Your task to perform on an android device: Open Youtube and go to "Your channel" Image 0: 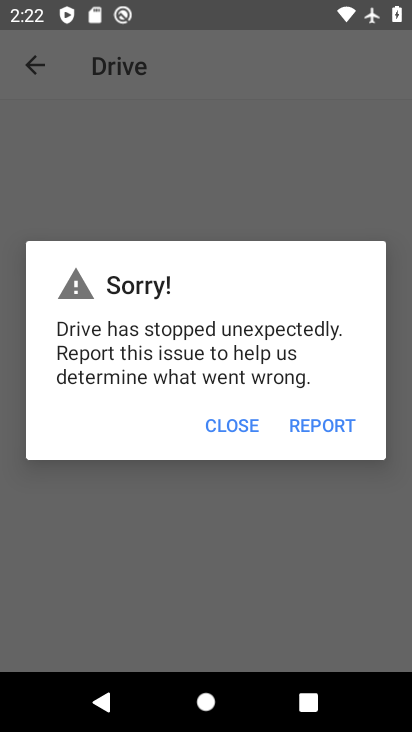
Step 0: press home button
Your task to perform on an android device: Open Youtube and go to "Your channel" Image 1: 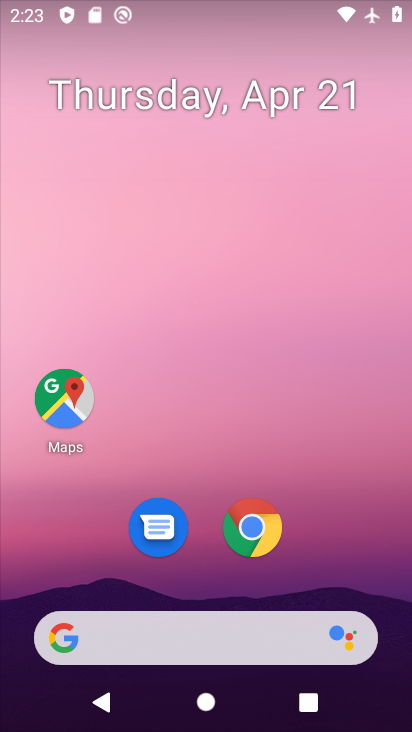
Step 1: drag from (299, 536) to (354, 37)
Your task to perform on an android device: Open Youtube and go to "Your channel" Image 2: 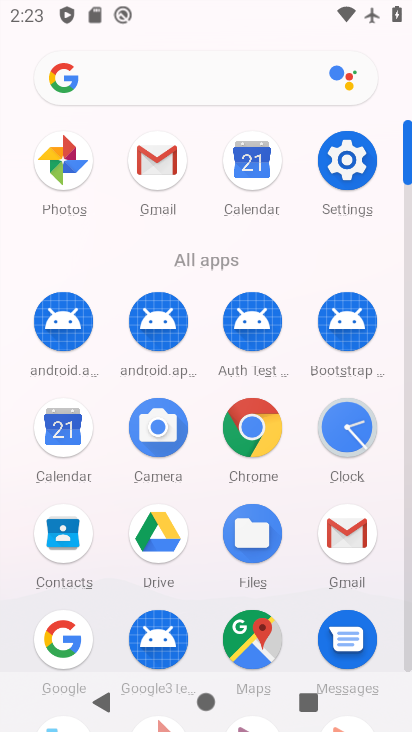
Step 2: drag from (286, 597) to (308, 110)
Your task to perform on an android device: Open Youtube and go to "Your channel" Image 3: 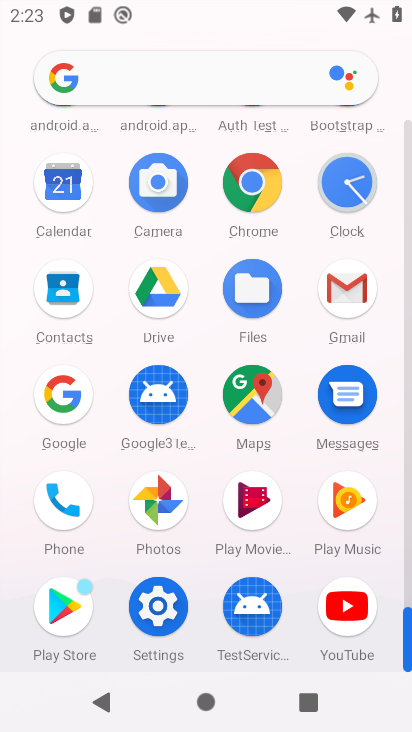
Step 3: click (339, 612)
Your task to perform on an android device: Open Youtube and go to "Your channel" Image 4: 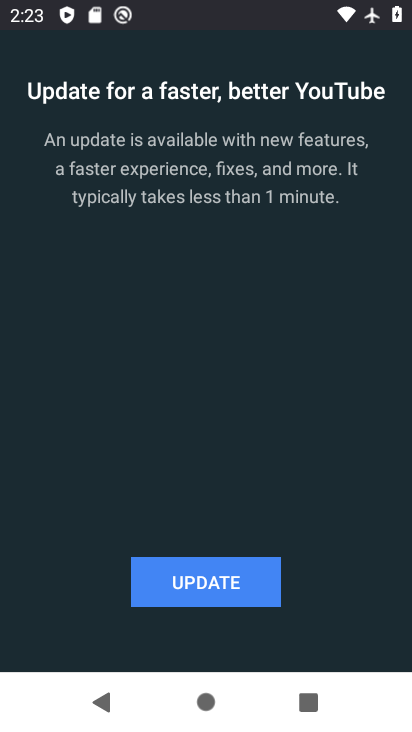
Step 4: click (222, 598)
Your task to perform on an android device: Open Youtube and go to "Your channel" Image 5: 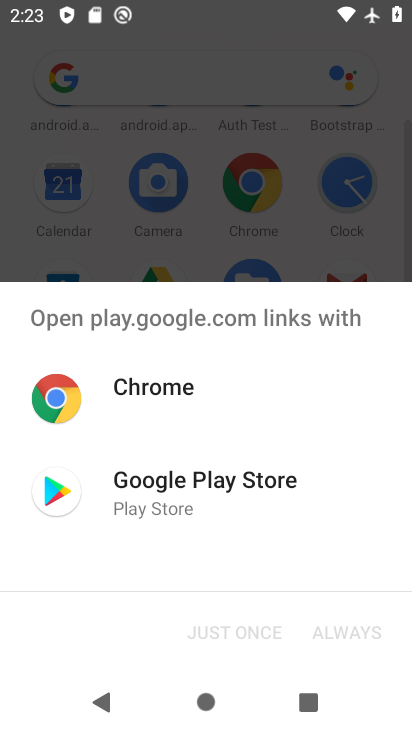
Step 5: click (143, 478)
Your task to perform on an android device: Open Youtube and go to "Your channel" Image 6: 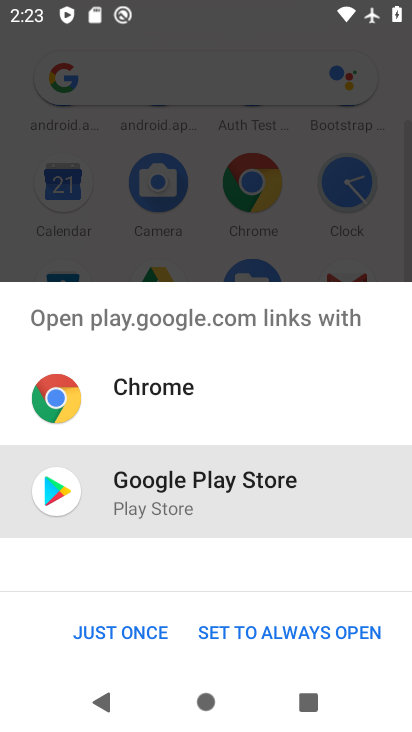
Step 6: click (136, 622)
Your task to perform on an android device: Open Youtube and go to "Your channel" Image 7: 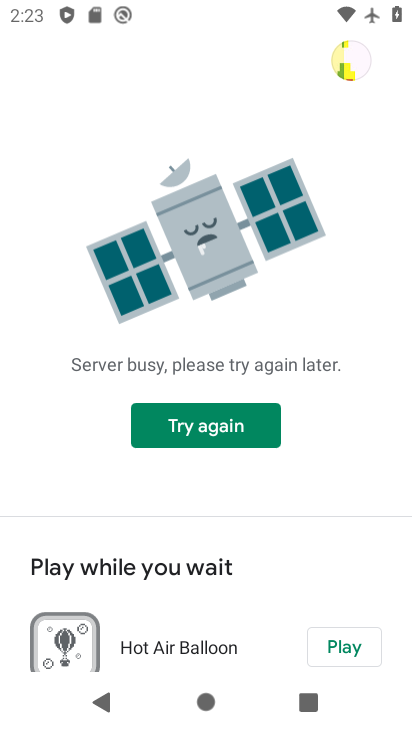
Step 7: click (205, 443)
Your task to perform on an android device: Open Youtube and go to "Your channel" Image 8: 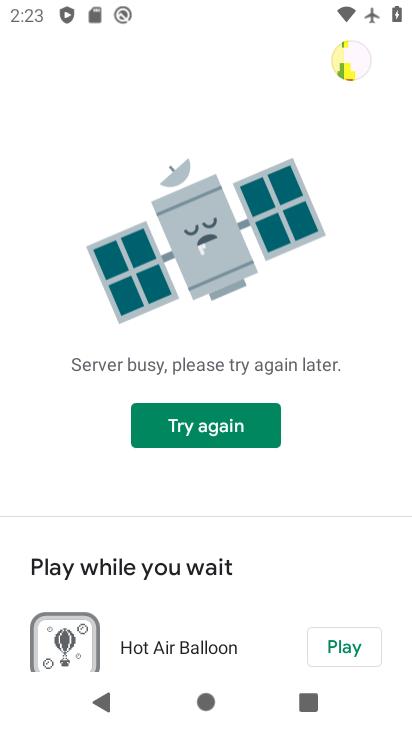
Step 8: click (205, 443)
Your task to perform on an android device: Open Youtube and go to "Your channel" Image 9: 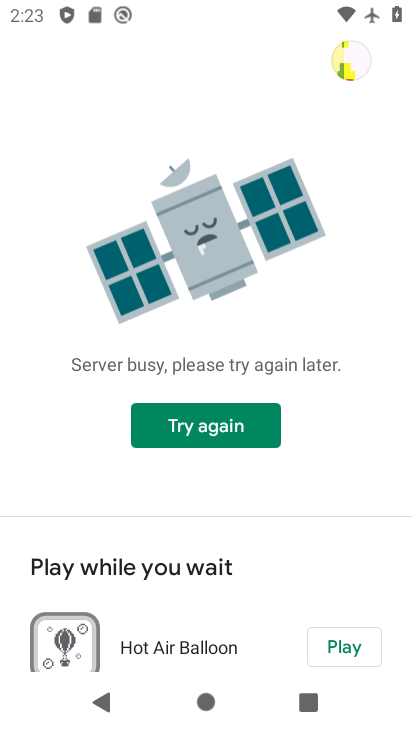
Step 9: click (205, 443)
Your task to perform on an android device: Open Youtube and go to "Your channel" Image 10: 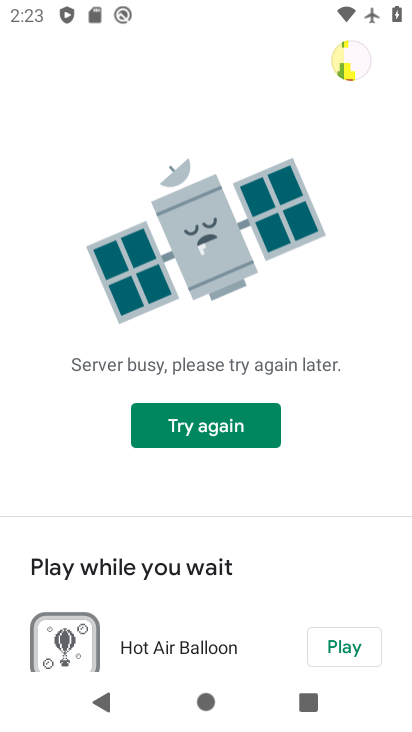
Step 10: click (205, 443)
Your task to perform on an android device: Open Youtube and go to "Your channel" Image 11: 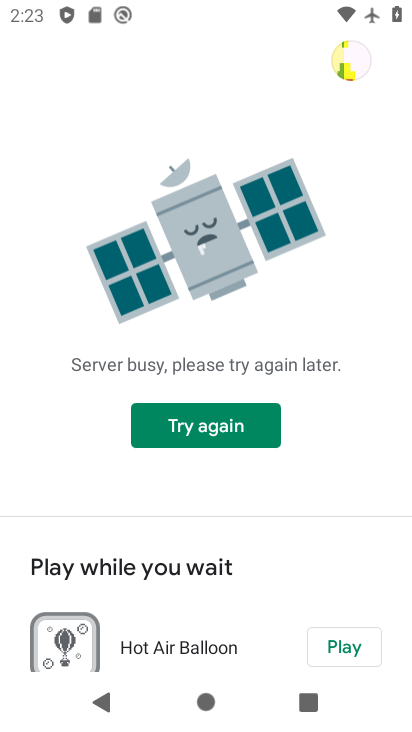
Step 11: click (205, 443)
Your task to perform on an android device: Open Youtube and go to "Your channel" Image 12: 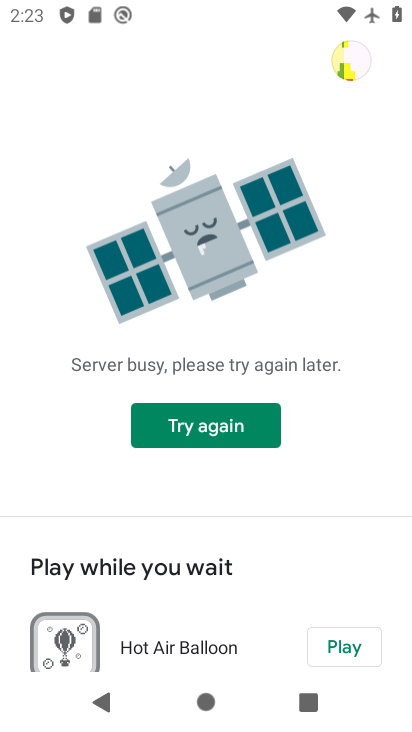
Step 12: click (205, 443)
Your task to perform on an android device: Open Youtube and go to "Your channel" Image 13: 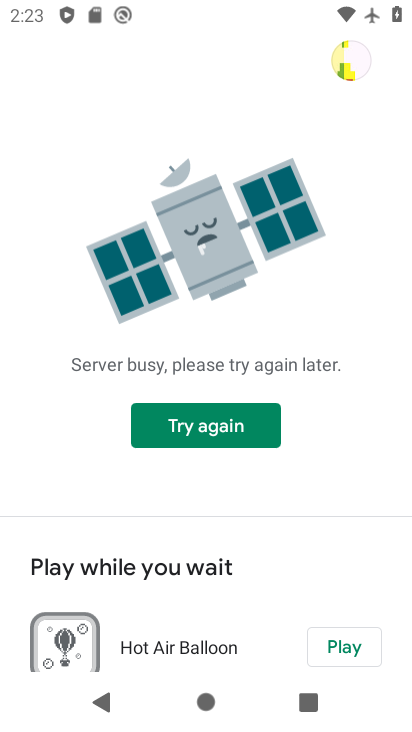
Step 13: click (221, 429)
Your task to perform on an android device: Open Youtube and go to "Your channel" Image 14: 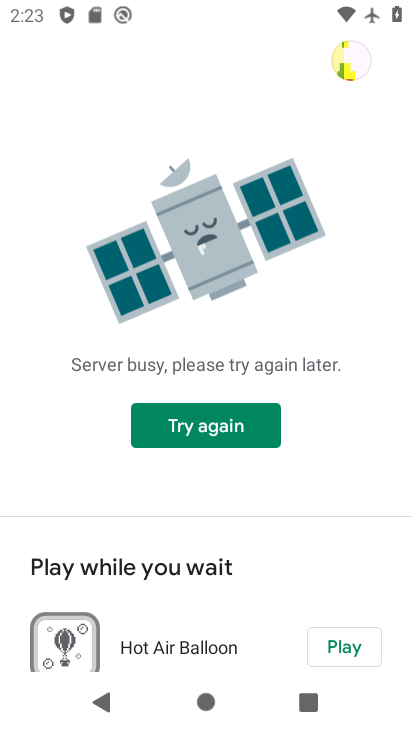
Step 14: click (221, 429)
Your task to perform on an android device: Open Youtube and go to "Your channel" Image 15: 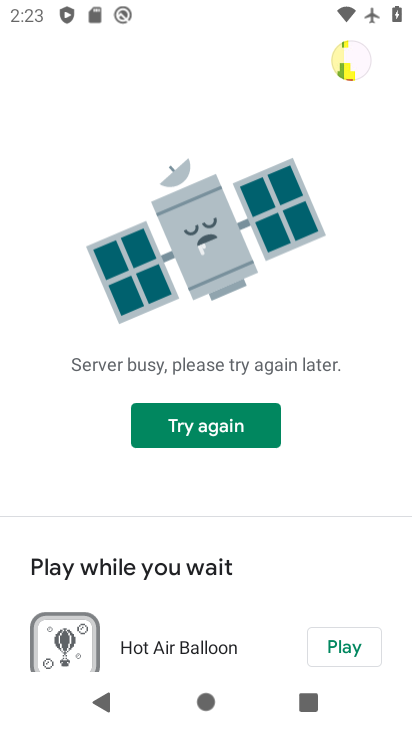
Step 15: click (221, 429)
Your task to perform on an android device: Open Youtube and go to "Your channel" Image 16: 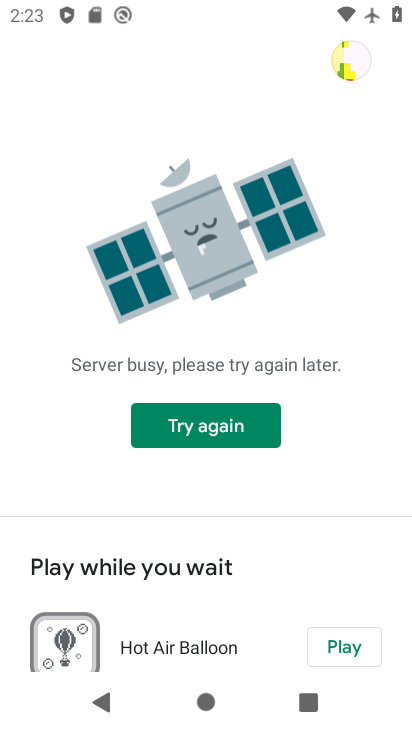
Step 16: click (221, 429)
Your task to perform on an android device: Open Youtube and go to "Your channel" Image 17: 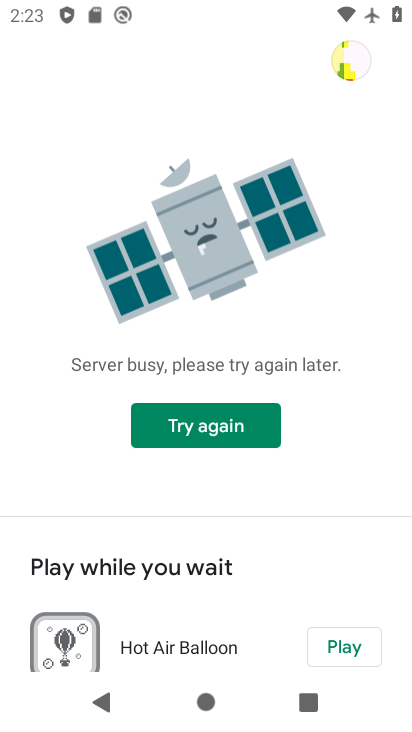
Step 17: click (221, 429)
Your task to perform on an android device: Open Youtube and go to "Your channel" Image 18: 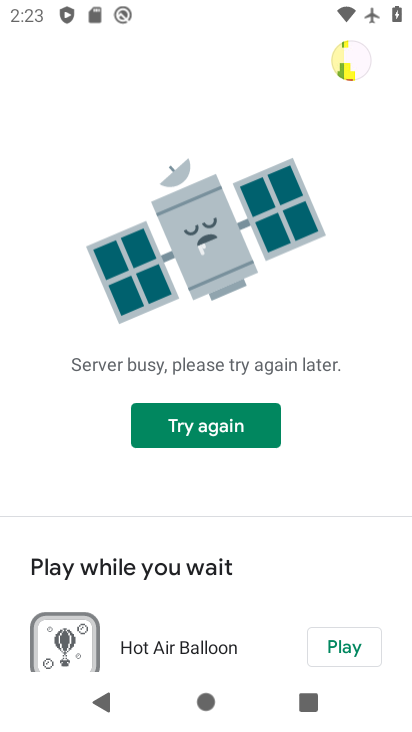
Step 18: click (221, 429)
Your task to perform on an android device: Open Youtube and go to "Your channel" Image 19: 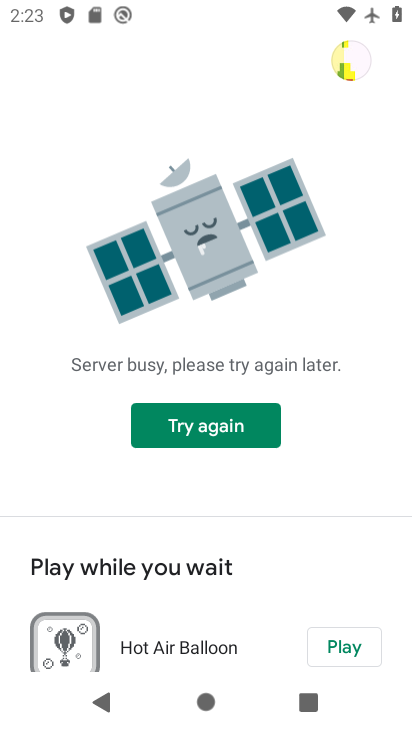
Step 19: task complete